Your task to perform on an android device: Go to display settings Image 0: 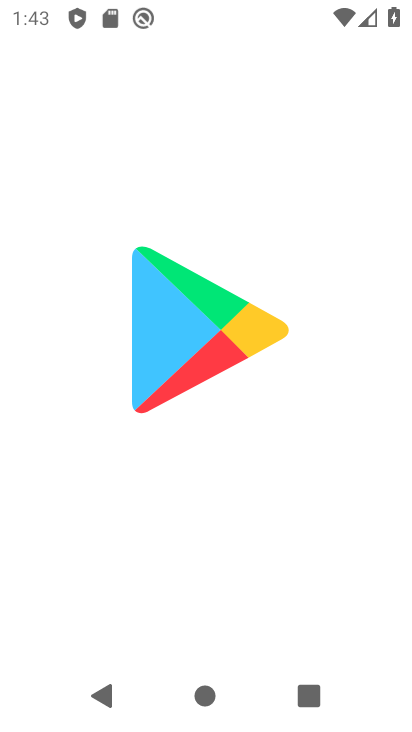
Step 0: drag from (281, 540) to (315, 302)
Your task to perform on an android device: Go to display settings Image 1: 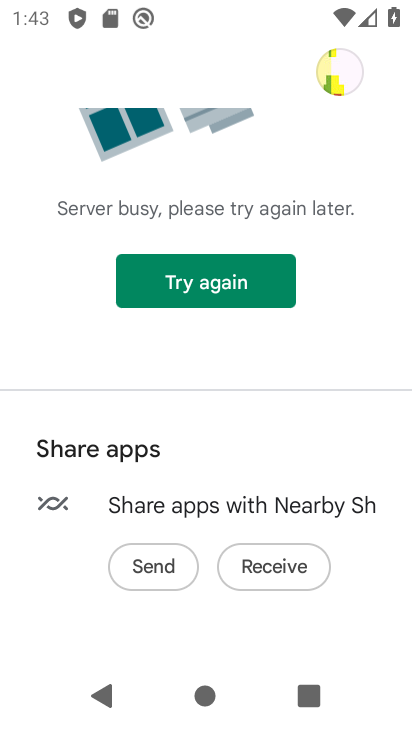
Step 1: press home button
Your task to perform on an android device: Go to display settings Image 2: 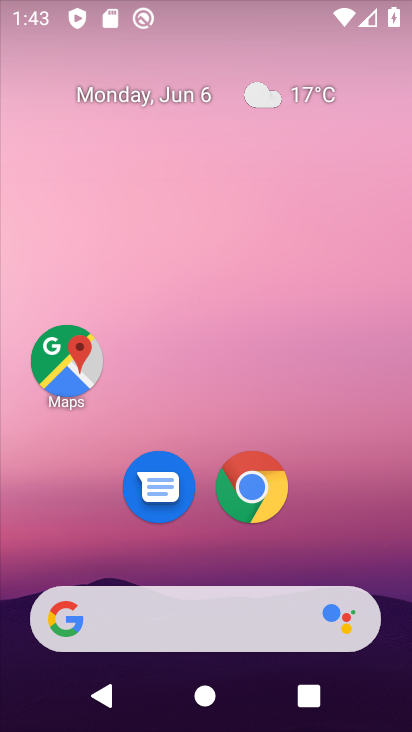
Step 2: drag from (327, 542) to (298, 127)
Your task to perform on an android device: Go to display settings Image 3: 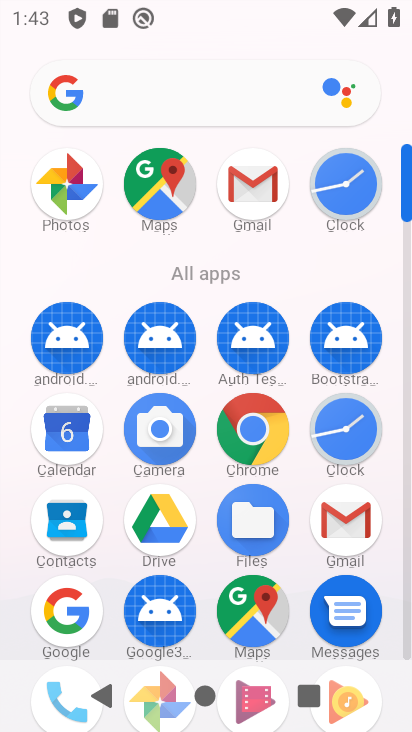
Step 3: click (255, 424)
Your task to perform on an android device: Go to display settings Image 4: 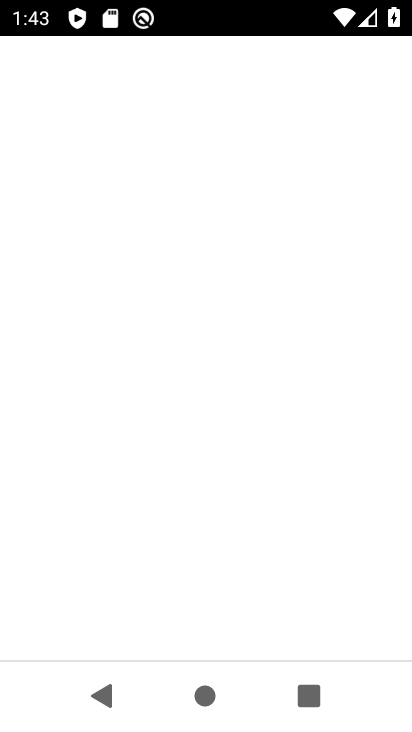
Step 4: press home button
Your task to perform on an android device: Go to display settings Image 5: 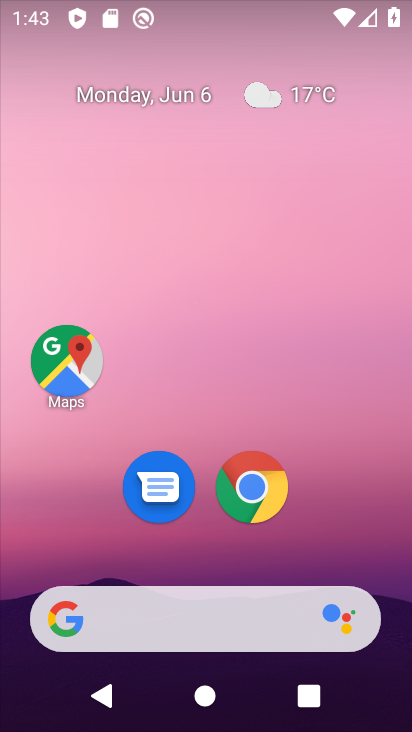
Step 5: drag from (327, 536) to (383, 102)
Your task to perform on an android device: Go to display settings Image 6: 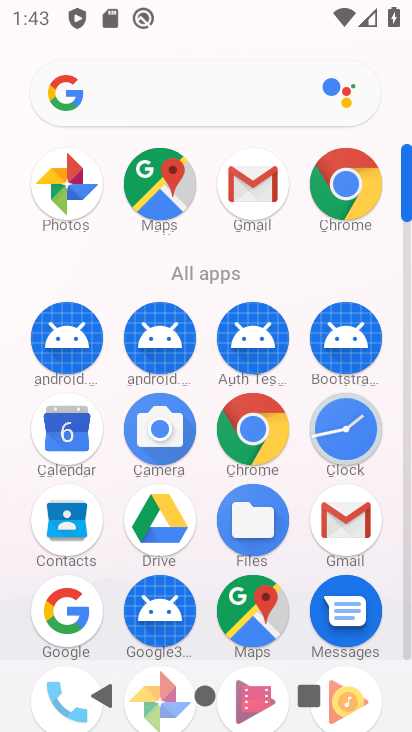
Step 6: drag from (100, 534) to (97, 224)
Your task to perform on an android device: Go to display settings Image 7: 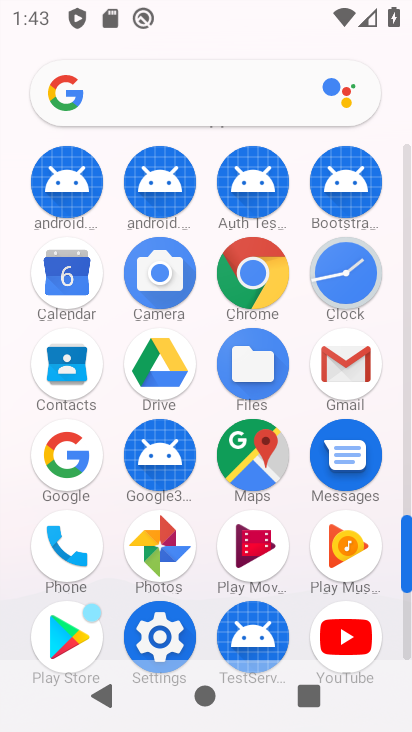
Step 7: click (181, 607)
Your task to perform on an android device: Go to display settings Image 8: 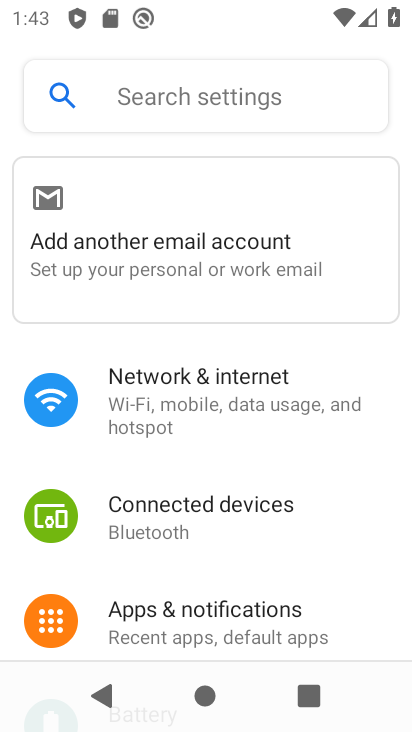
Step 8: drag from (216, 538) to (238, 117)
Your task to perform on an android device: Go to display settings Image 9: 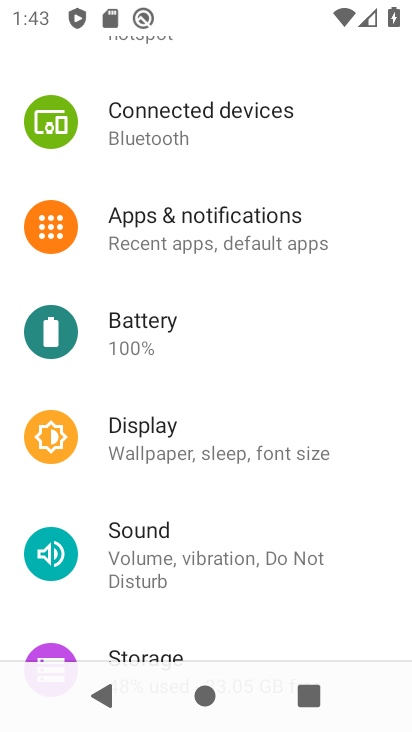
Step 9: click (190, 447)
Your task to perform on an android device: Go to display settings Image 10: 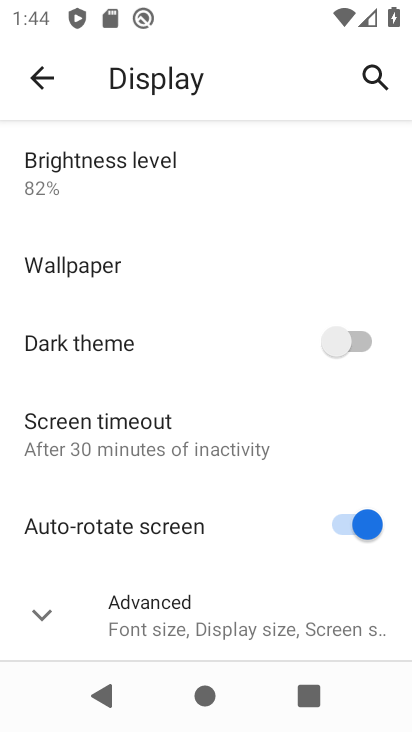
Step 10: task complete